Your task to perform on an android device: Is it going to rain tomorrow? Image 0: 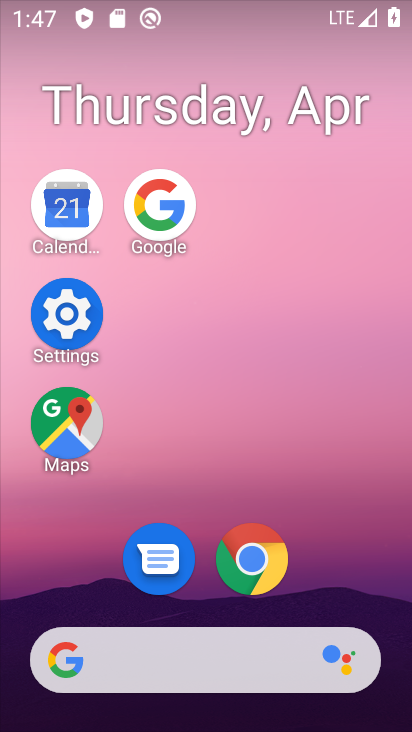
Step 0: drag from (289, 587) to (331, 71)
Your task to perform on an android device: Is it going to rain tomorrow? Image 1: 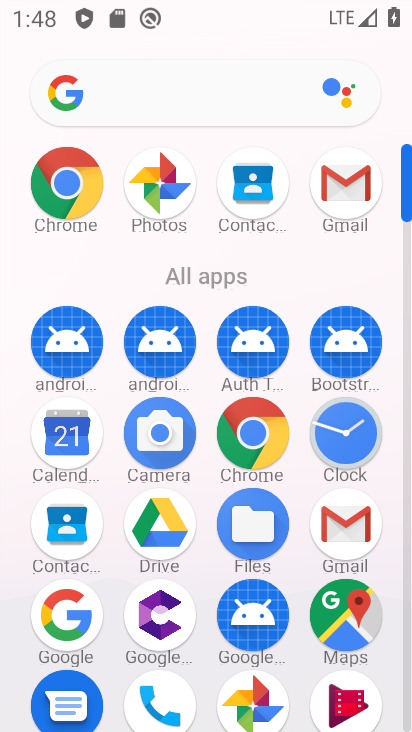
Step 1: drag from (225, 543) to (257, 189)
Your task to perform on an android device: Is it going to rain tomorrow? Image 2: 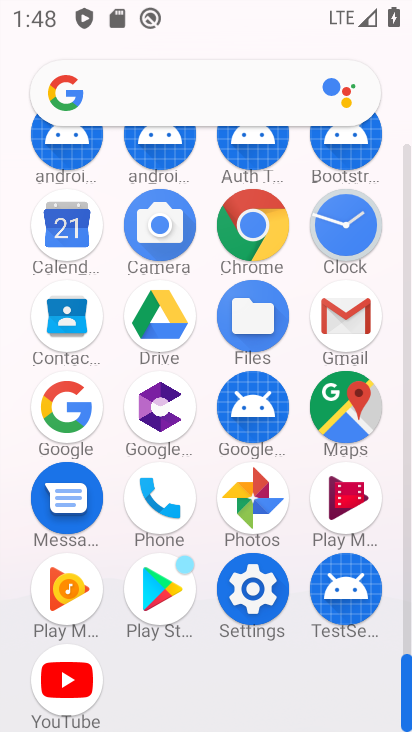
Step 2: click (76, 409)
Your task to perform on an android device: Is it going to rain tomorrow? Image 3: 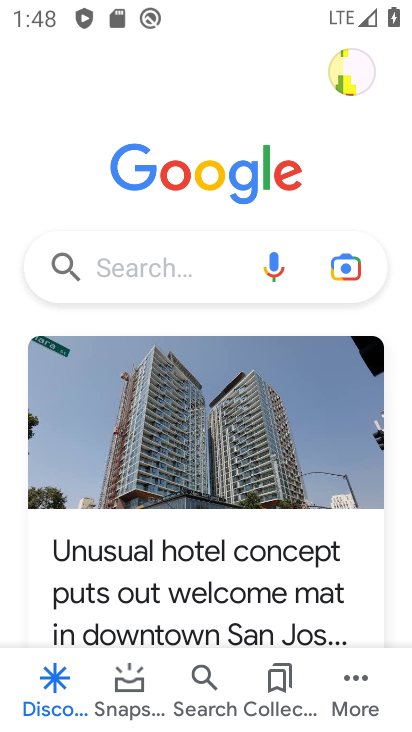
Step 3: click (188, 262)
Your task to perform on an android device: Is it going to rain tomorrow? Image 4: 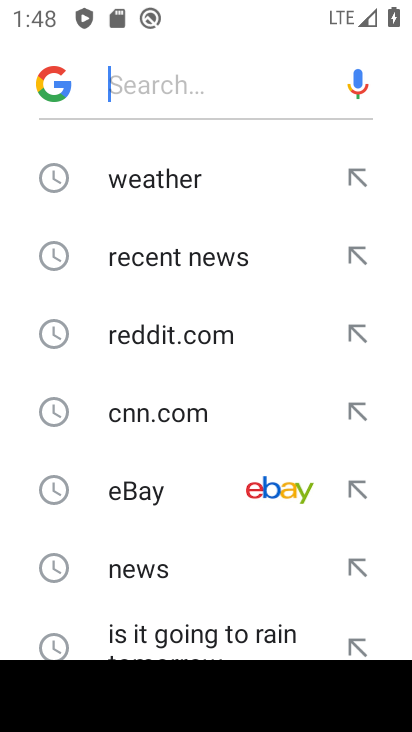
Step 4: click (207, 192)
Your task to perform on an android device: Is it going to rain tomorrow? Image 5: 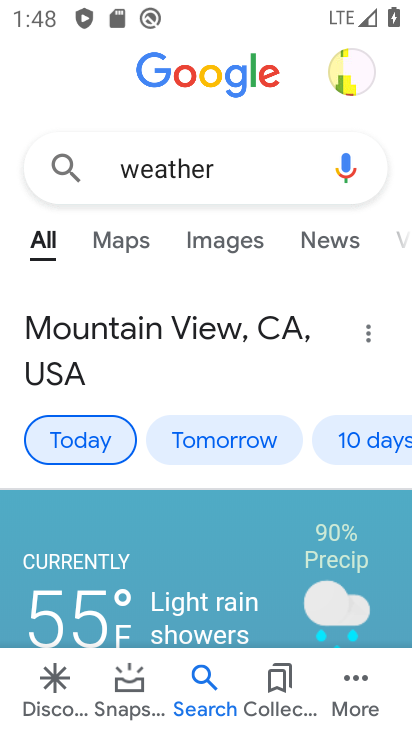
Step 5: task complete